Your task to perform on an android device: turn on sleep mode Image 0: 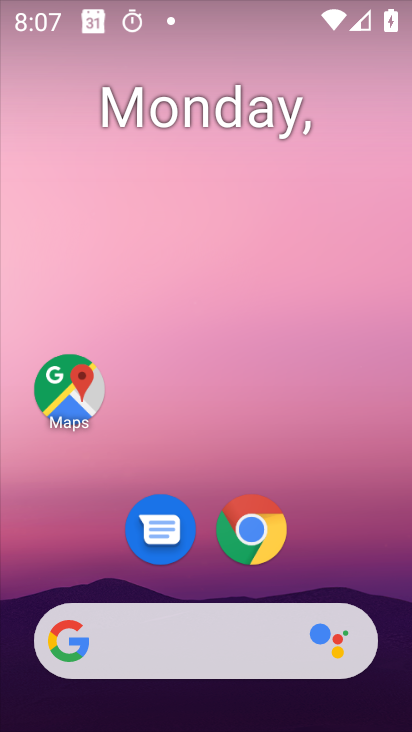
Step 0: drag from (39, 582) to (284, 84)
Your task to perform on an android device: turn on sleep mode Image 1: 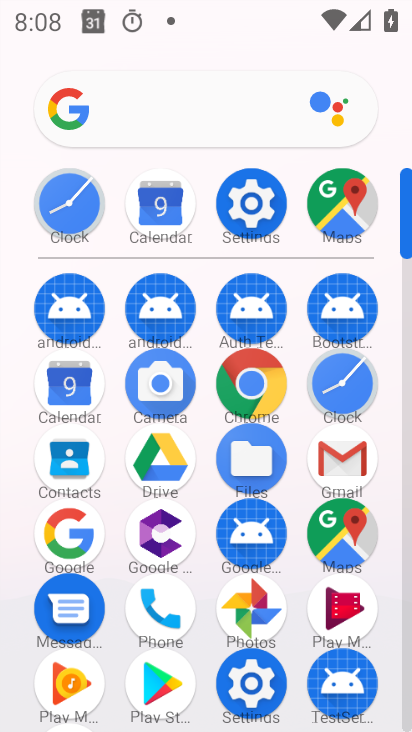
Step 1: click (244, 210)
Your task to perform on an android device: turn on sleep mode Image 2: 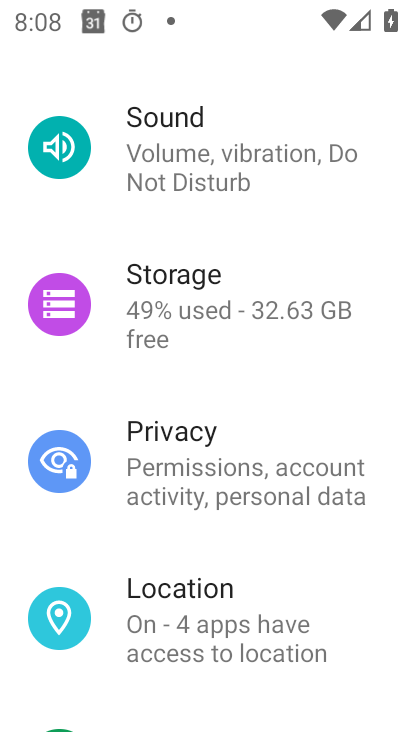
Step 2: task complete